Your task to perform on an android device: Open Google Chrome Image 0: 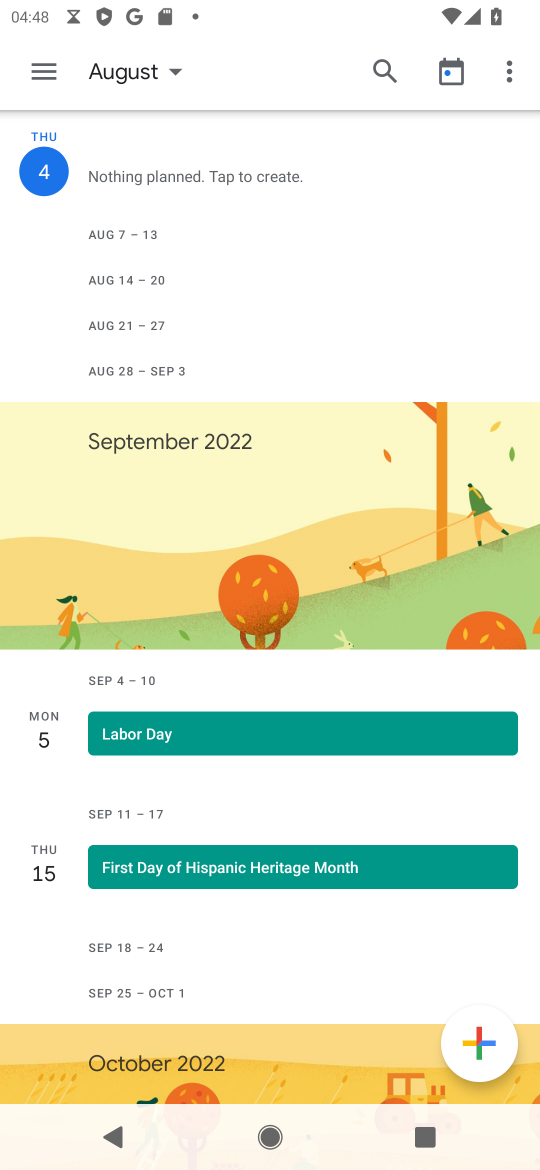
Step 0: press home button
Your task to perform on an android device: Open Google Chrome Image 1: 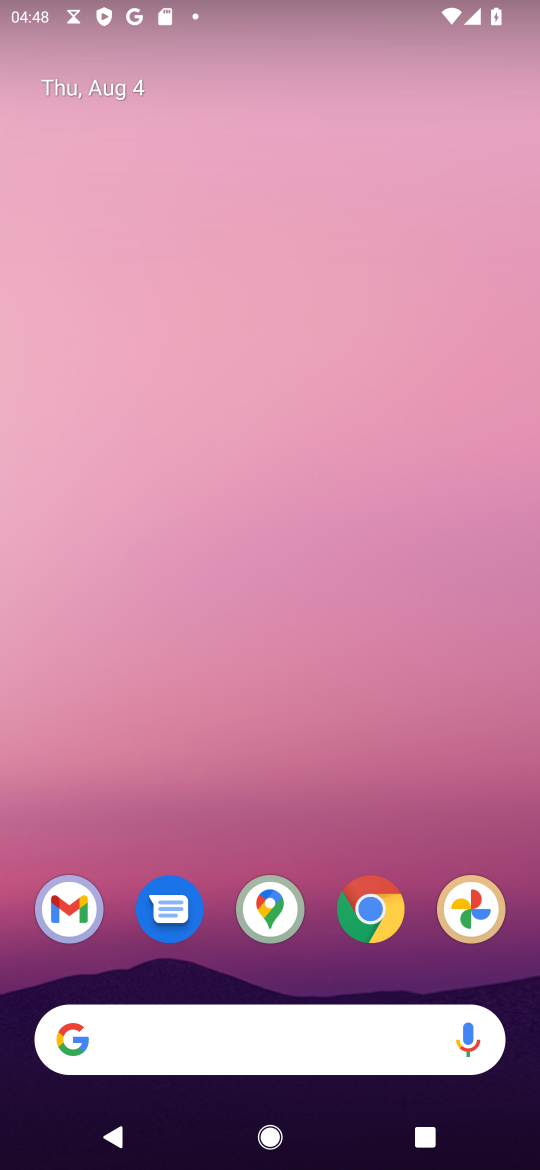
Step 1: click (370, 916)
Your task to perform on an android device: Open Google Chrome Image 2: 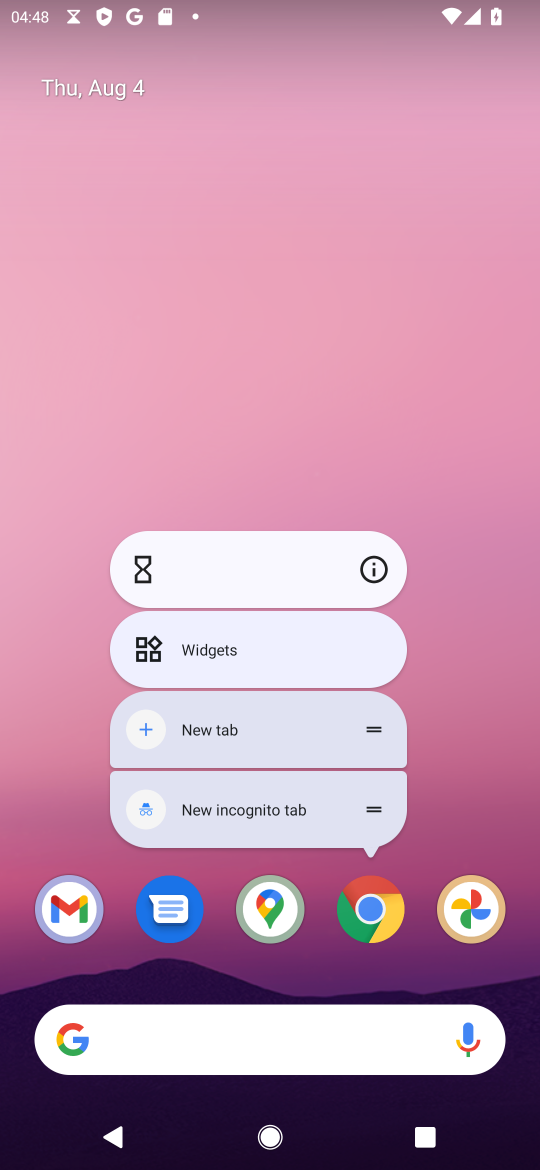
Step 2: click (381, 900)
Your task to perform on an android device: Open Google Chrome Image 3: 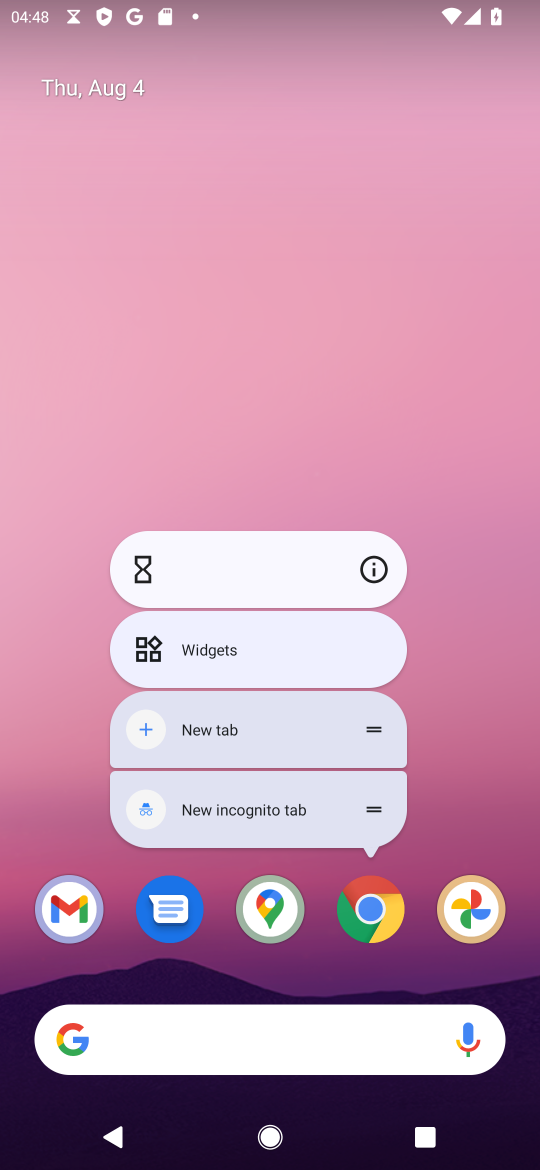
Step 3: click (381, 904)
Your task to perform on an android device: Open Google Chrome Image 4: 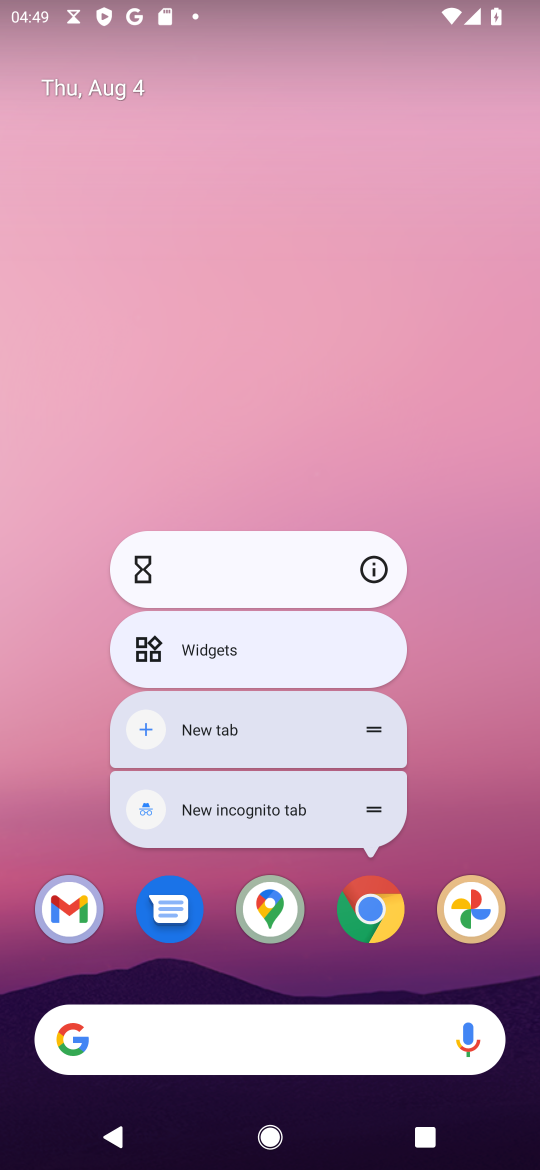
Step 4: click (381, 908)
Your task to perform on an android device: Open Google Chrome Image 5: 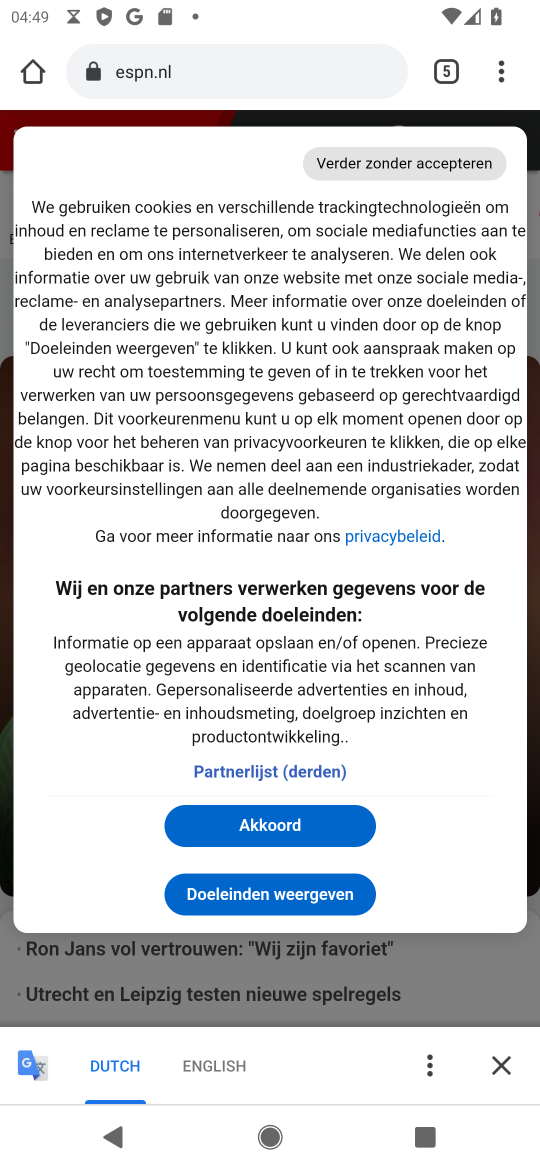
Step 5: task complete